Your task to perform on an android device: install app "Reddit" Image 0: 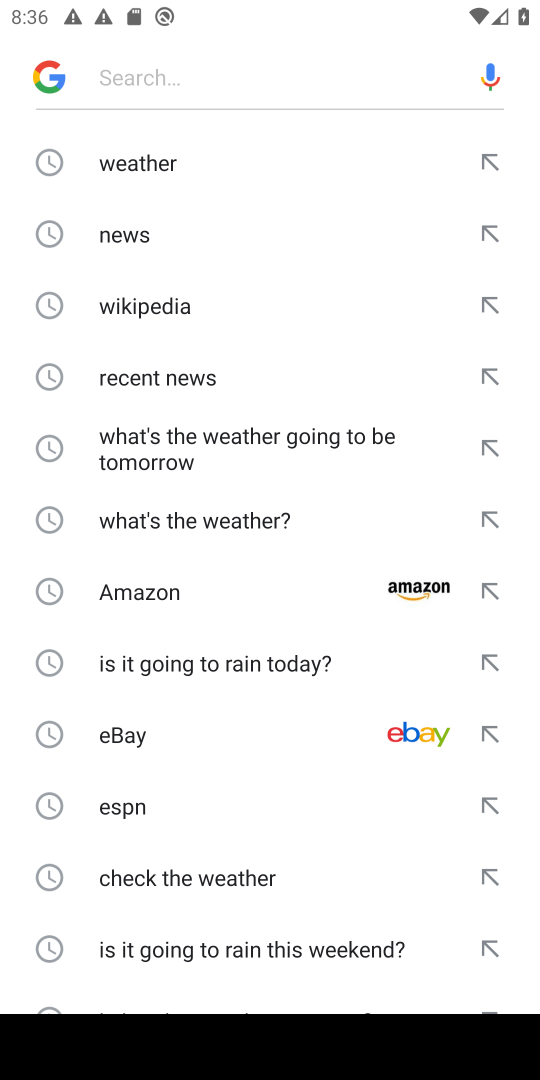
Step 0: press home button
Your task to perform on an android device: install app "Reddit" Image 1: 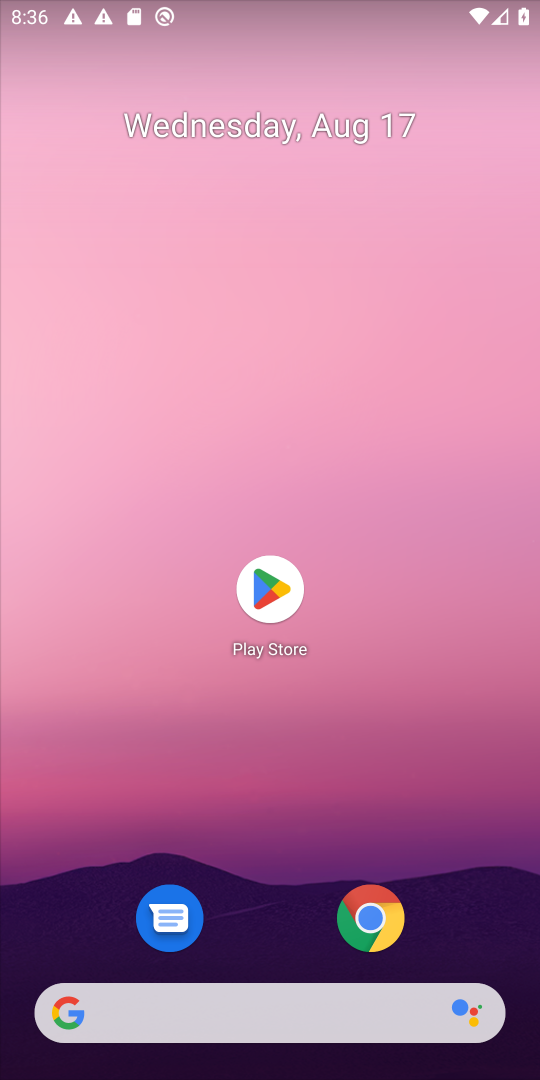
Step 1: drag from (454, 304) to (8, 311)
Your task to perform on an android device: install app "Reddit" Image 2: 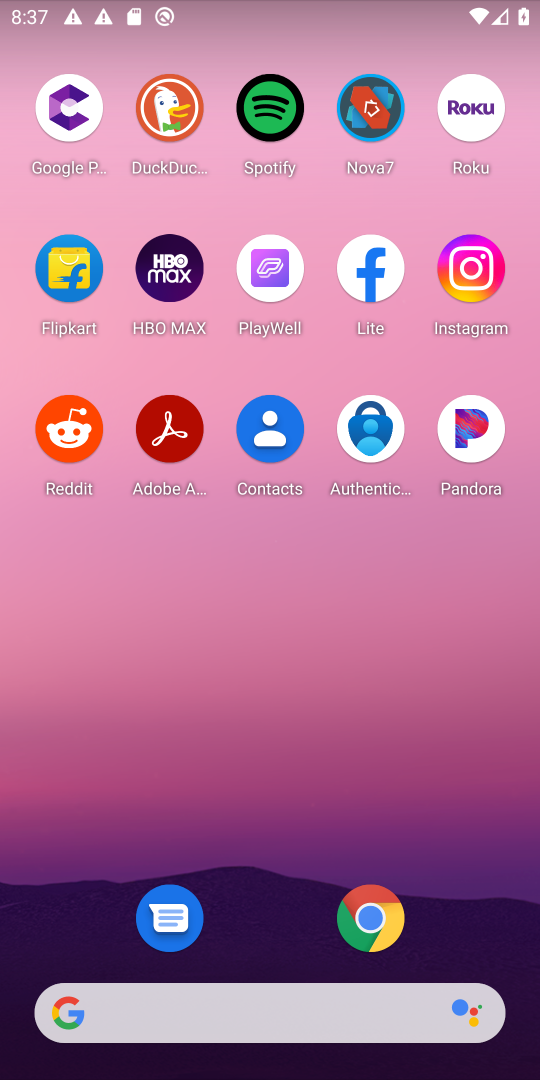
Step 2: click (73, 427)
Your task to perform on an android device: install app "Reddit" Image 3: 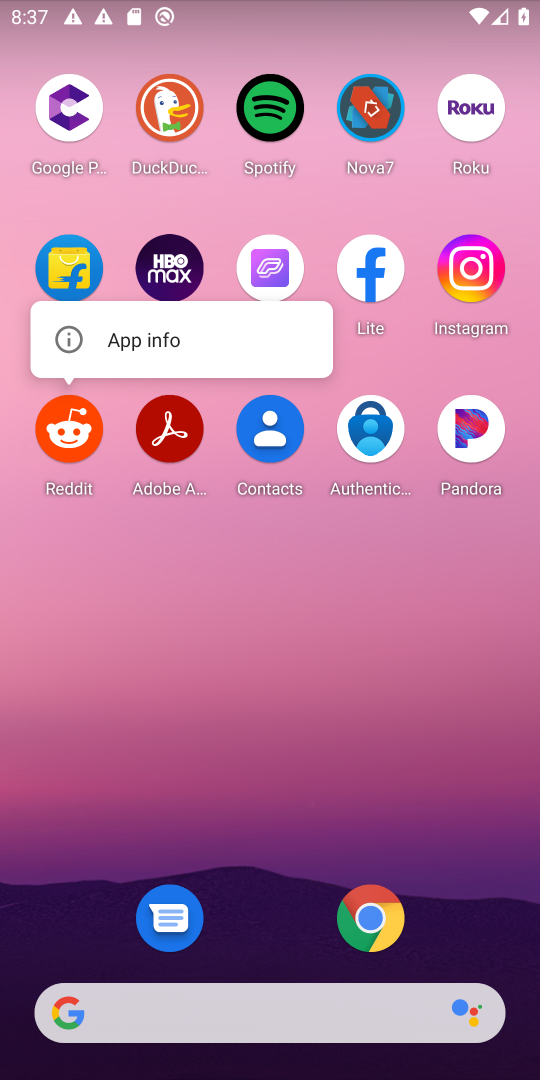
Step 3: click (70, 440)
Your task to perform on an android device: install app "Reddit" Image 4: 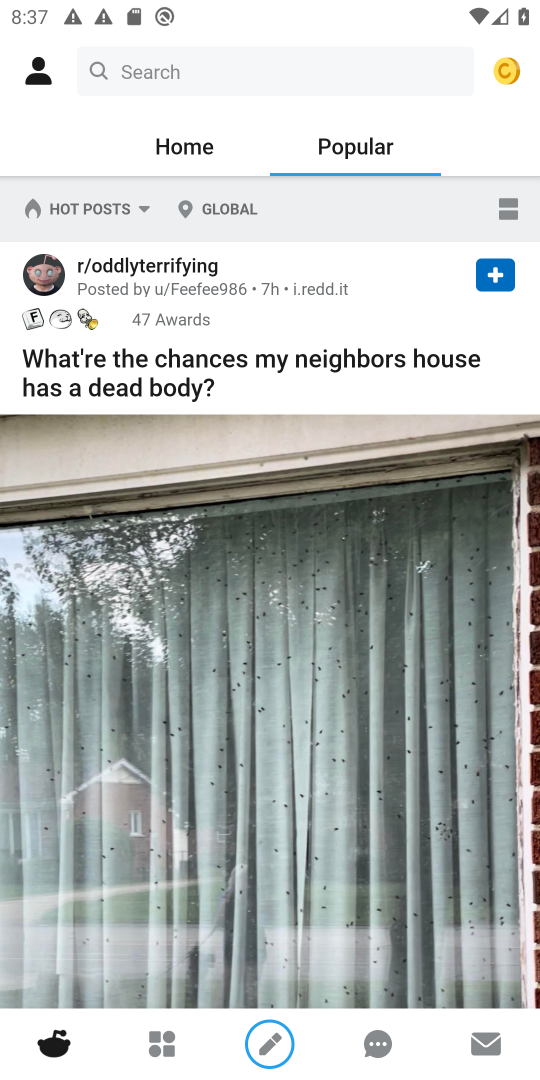
Step 4: task complete